Your task to perform on an android device: Open display settings Image 0: 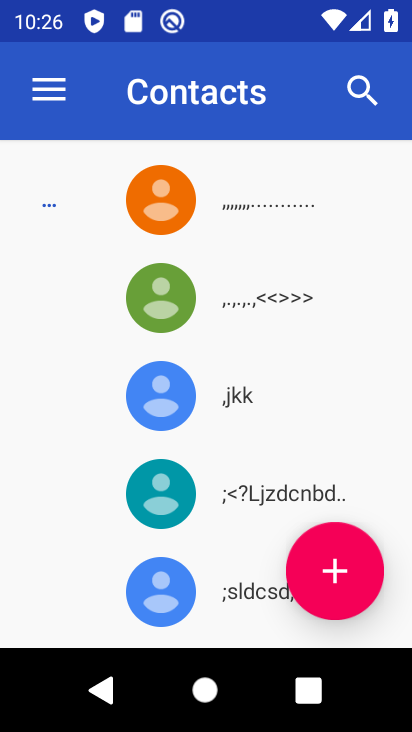
Step 0: press home button
Your task to perform on an android device: Open display settings Image 1: 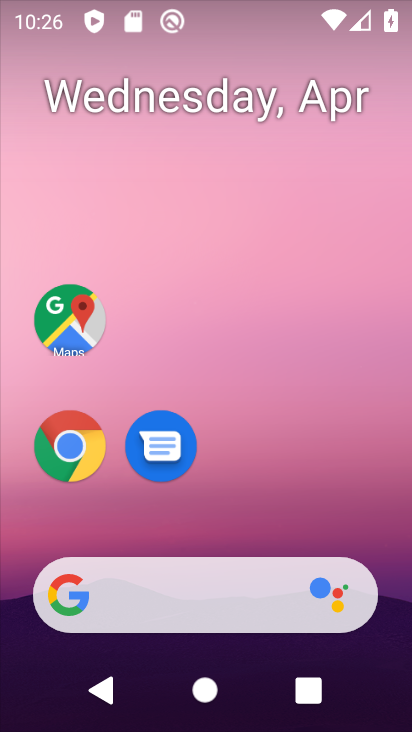
Step 1: drag from (209, 505) to (361, 557)
Your task to perform on an android device: Open display settings Image 2: 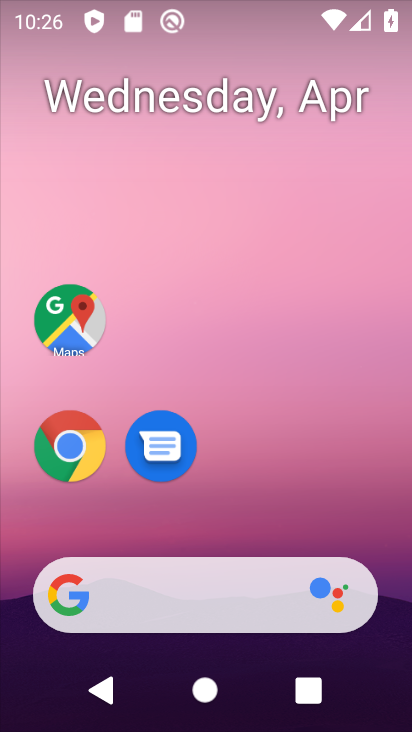
Step 2: drag from (206, 535) to (406, 551)
Your task to perform on an android device: Open display settings Image 3: 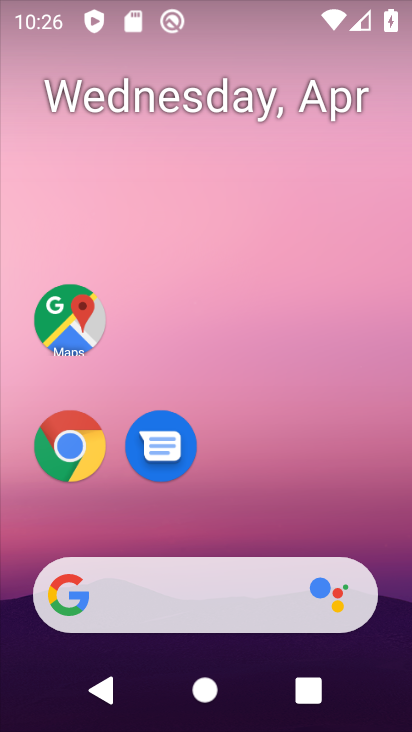
Step 3: drag from (227, 543) to (9, 632)
Your task to perform on an android device: Open display settings Image 4: 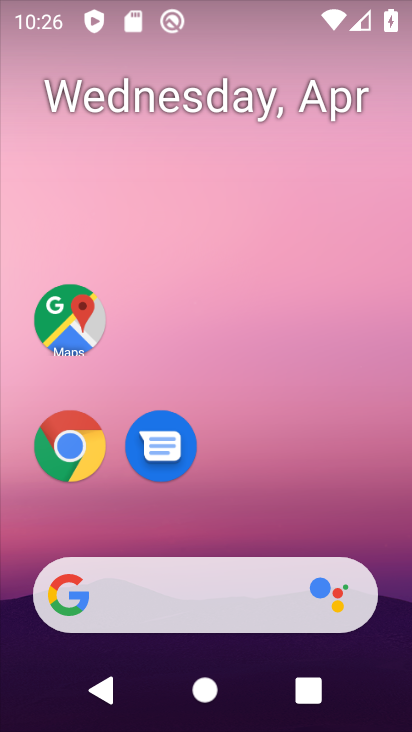
Step 4: click (238, 213)
Your task to perform on an android device: Open display settings Image 5: 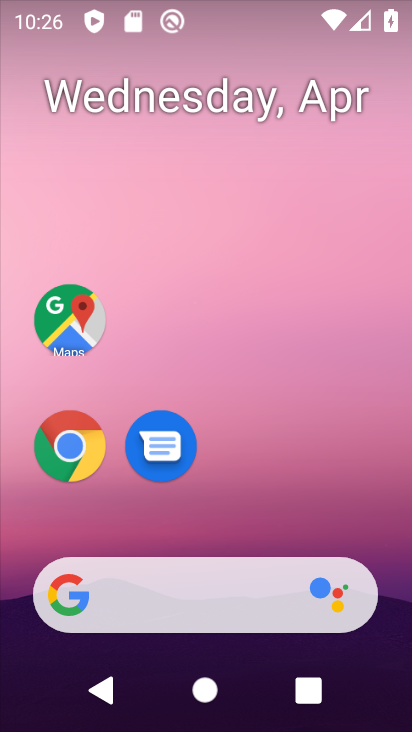
Step 5: drag from (210, 551) to (241, 12)
Your task to perform on an android device: Open display settings Image 6: 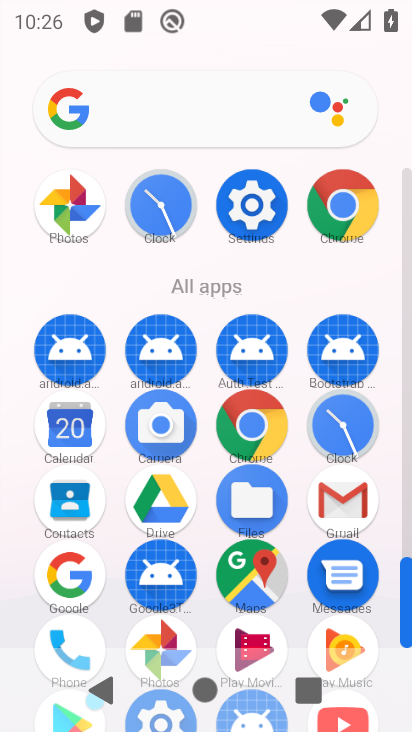
Step 6: click (243, 176)
Your task to perform on an android device: Open display settings Image 7: 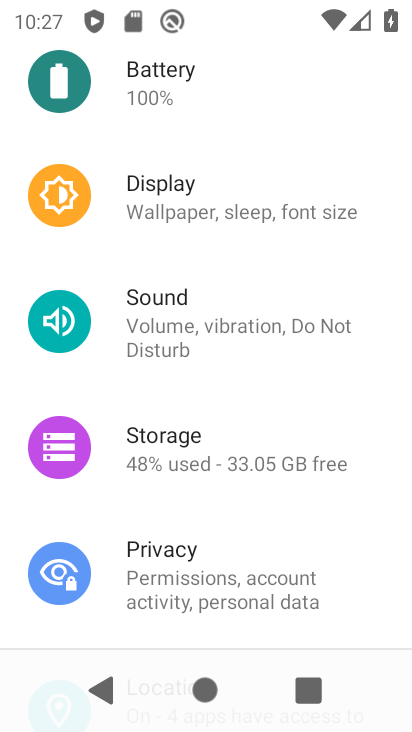
Step 7: click (176, 183)
Your task to perform on an android device: Open display settings Image 8: 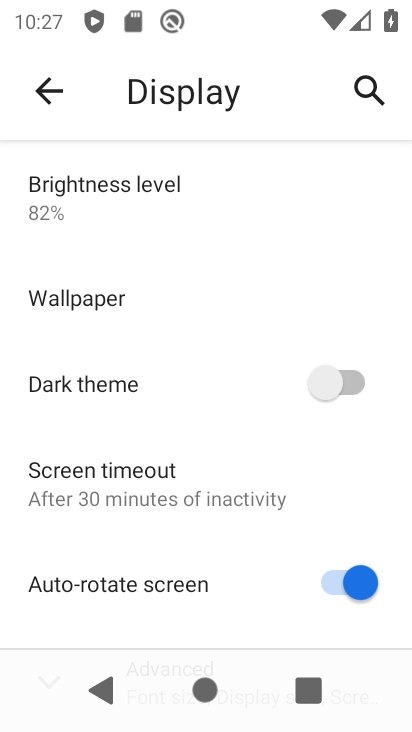
Step 8: task complete